Your task to perform on an android device: Do I have any events tomorrow? Image 0: 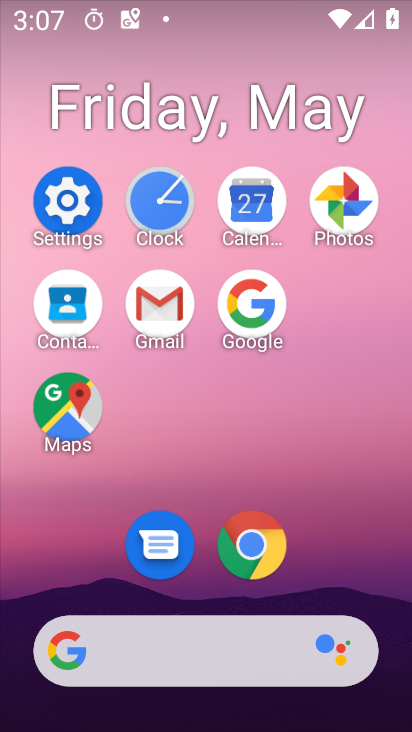
Step 0: click (258, 216)
Your task to perform on an android device: Do I have any events tomorrow? Image 1: 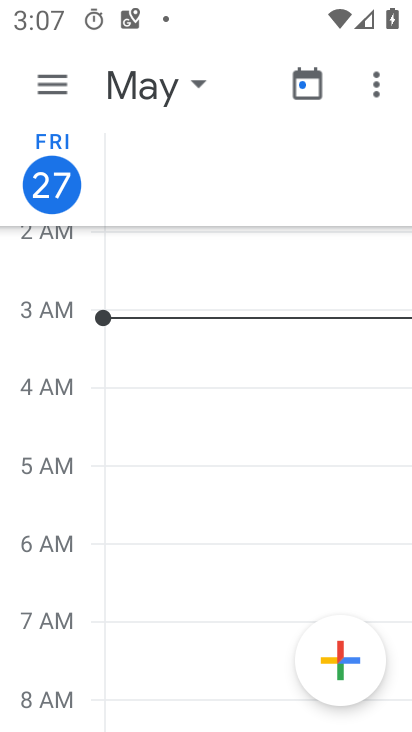
Step 1: drag from (372, 187) to (0, 184)
Your task to perform on an android device: Do I have any events tomorrow? Image 2: 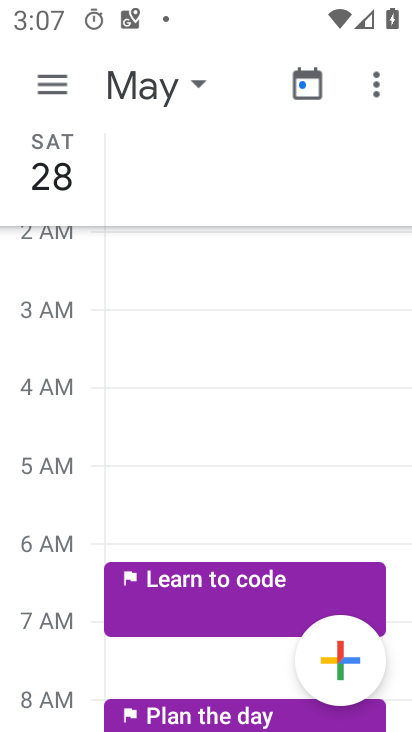
Step 2: click (52, 169)
Your task to perform on an android device: Do I have any events tomorrow? Image 3: 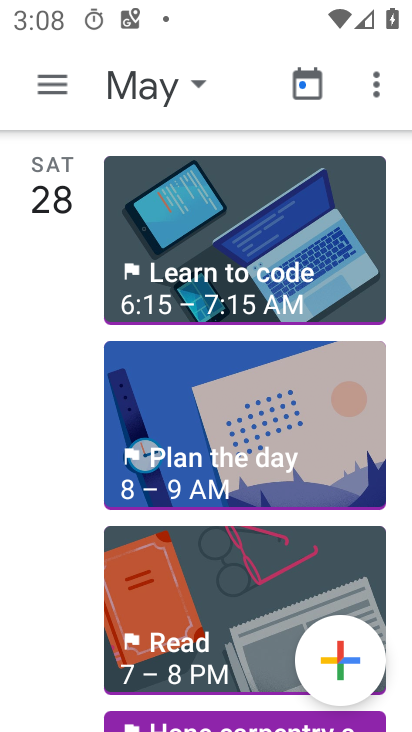
Step 3: task complete